Your task to perform on an android device: Go to network settings Image 0: 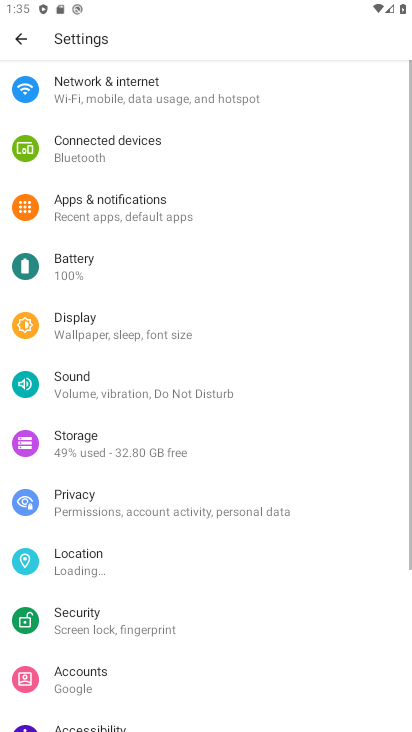
Step 0: click (259, 99)
Your task to perform on an android device: Go to network settings Image 1: 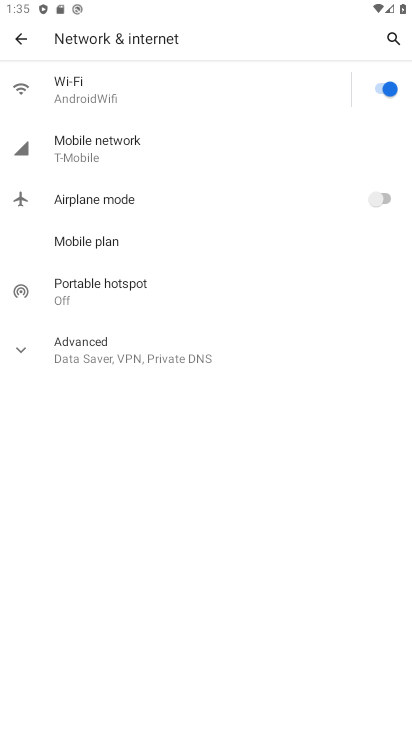
Step 1: click (157, 150)
Your task to perform on an android device: Go to network settings Image 2: 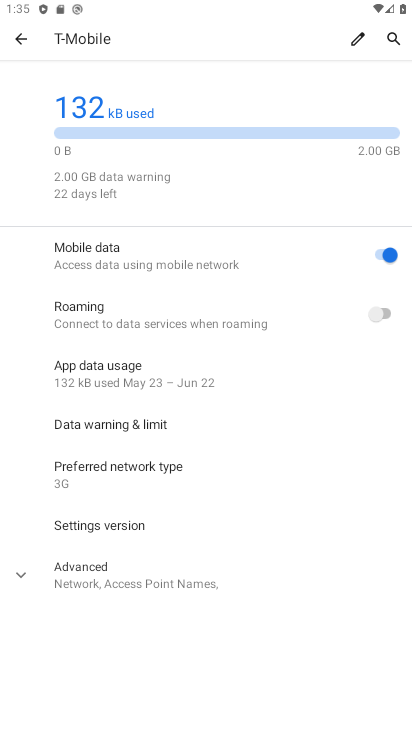
Step 2: task complete